Your task to perform on an android device: uninstall "Spotify: Music and Podcasts" Image 0: 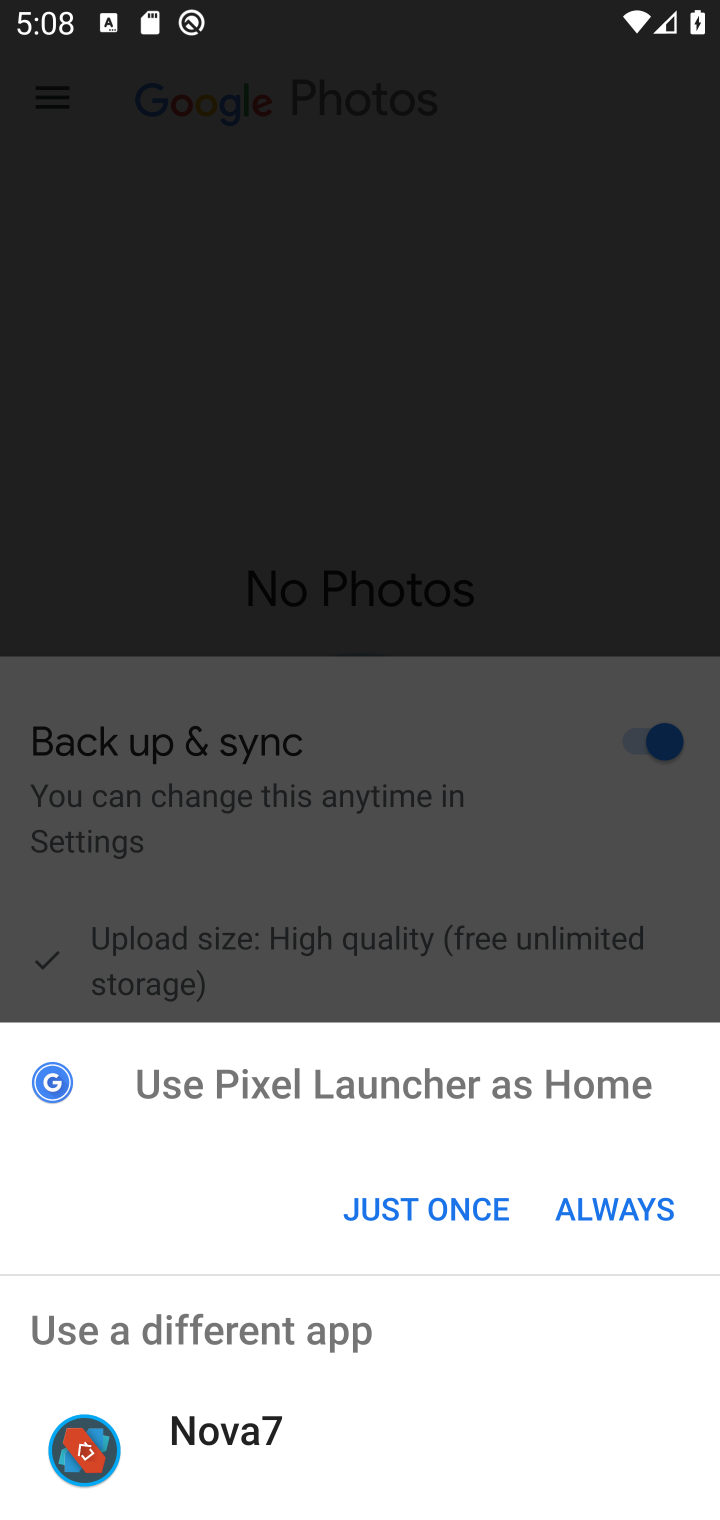
Step 0: press home button
Your task to perform on an android device: uninstall "Spotify: Music and Podcasts" Image 1: 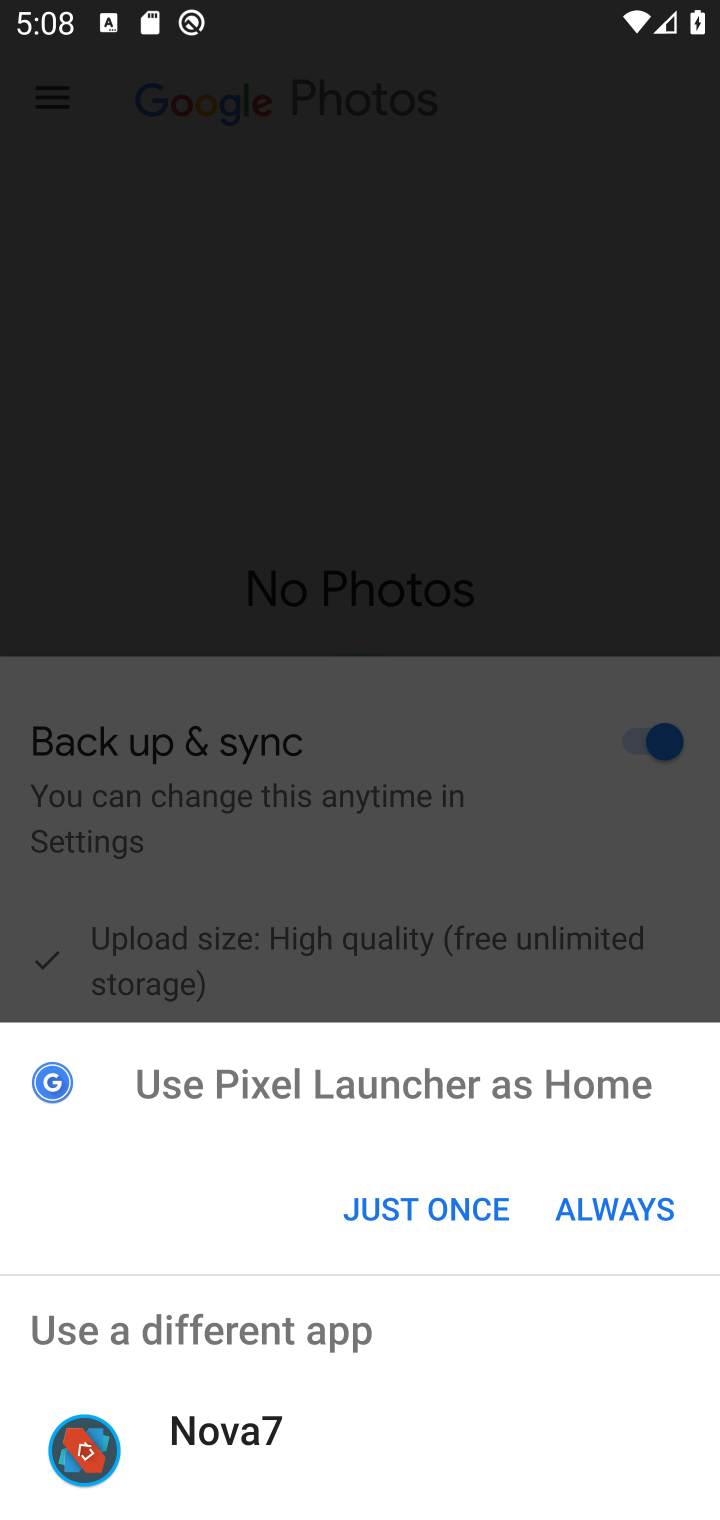
Step 1: click (481, 1201)
Your task to perform on an android device: uninstall "Spotify: Music and Podcasts" Image 2: 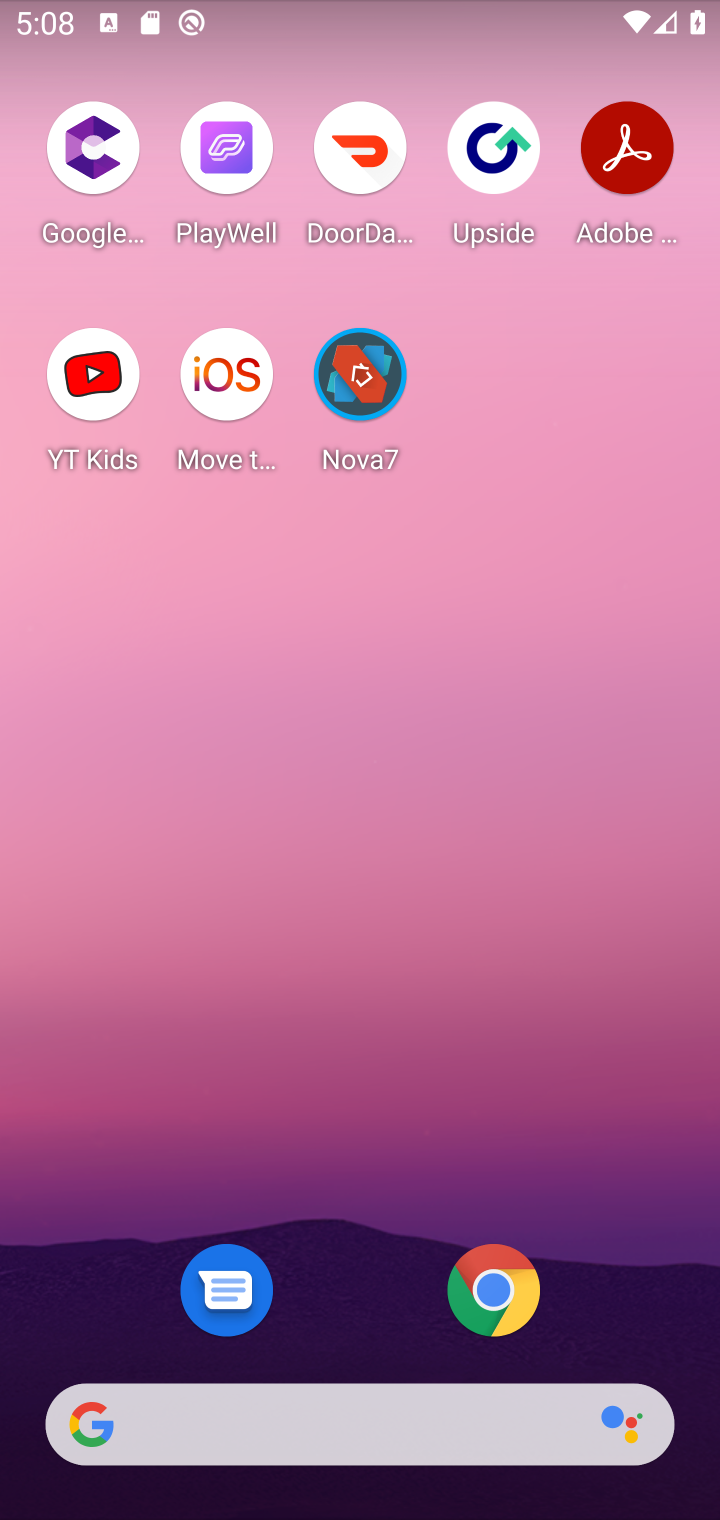
Step 2: drag from (409, 1408) to (512, 54)
Your task to perform on an android device: uninstall "Spotify: Music and Podcasts" Image 3: 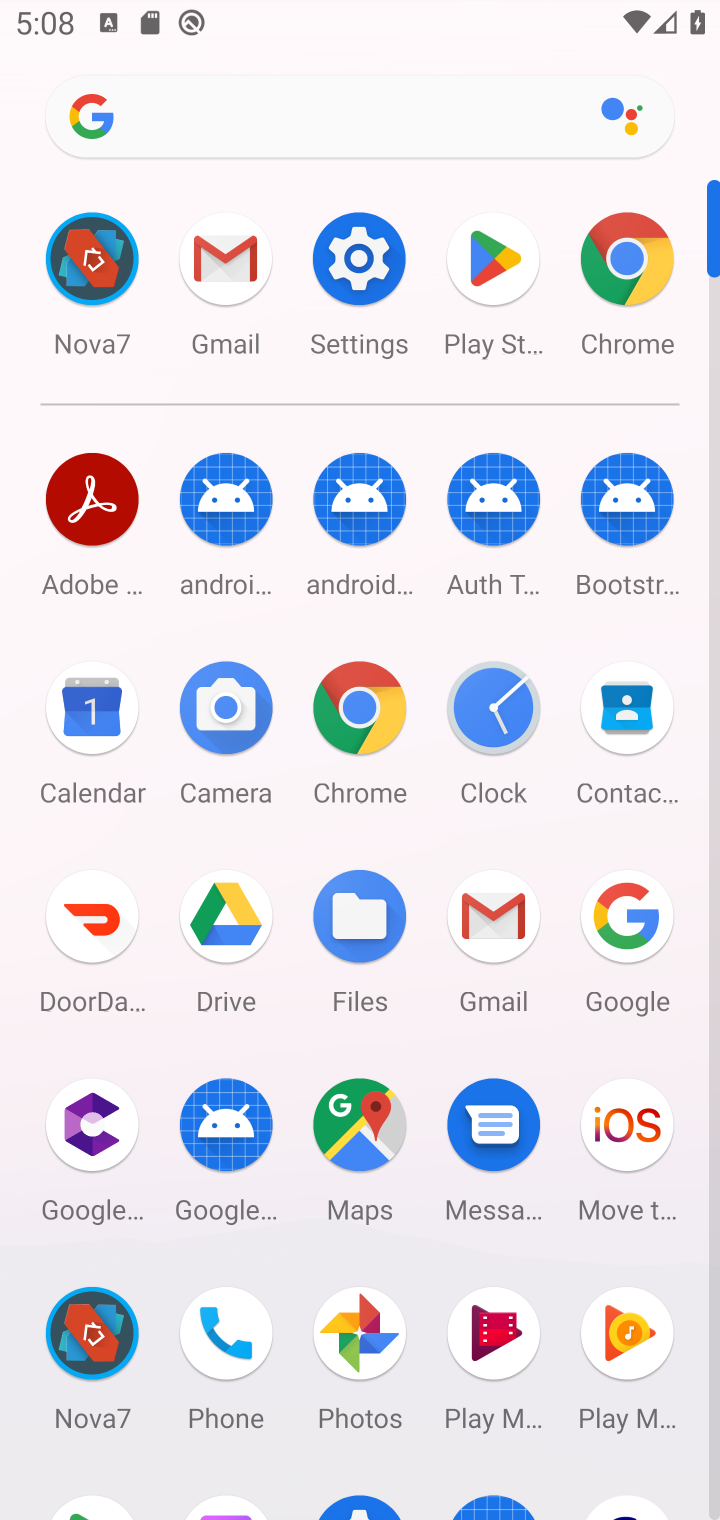
Step 3: click (502, 288)
Your task to perform on an android device: uninstall "Spotify: Music and Podcasts" Image 4: 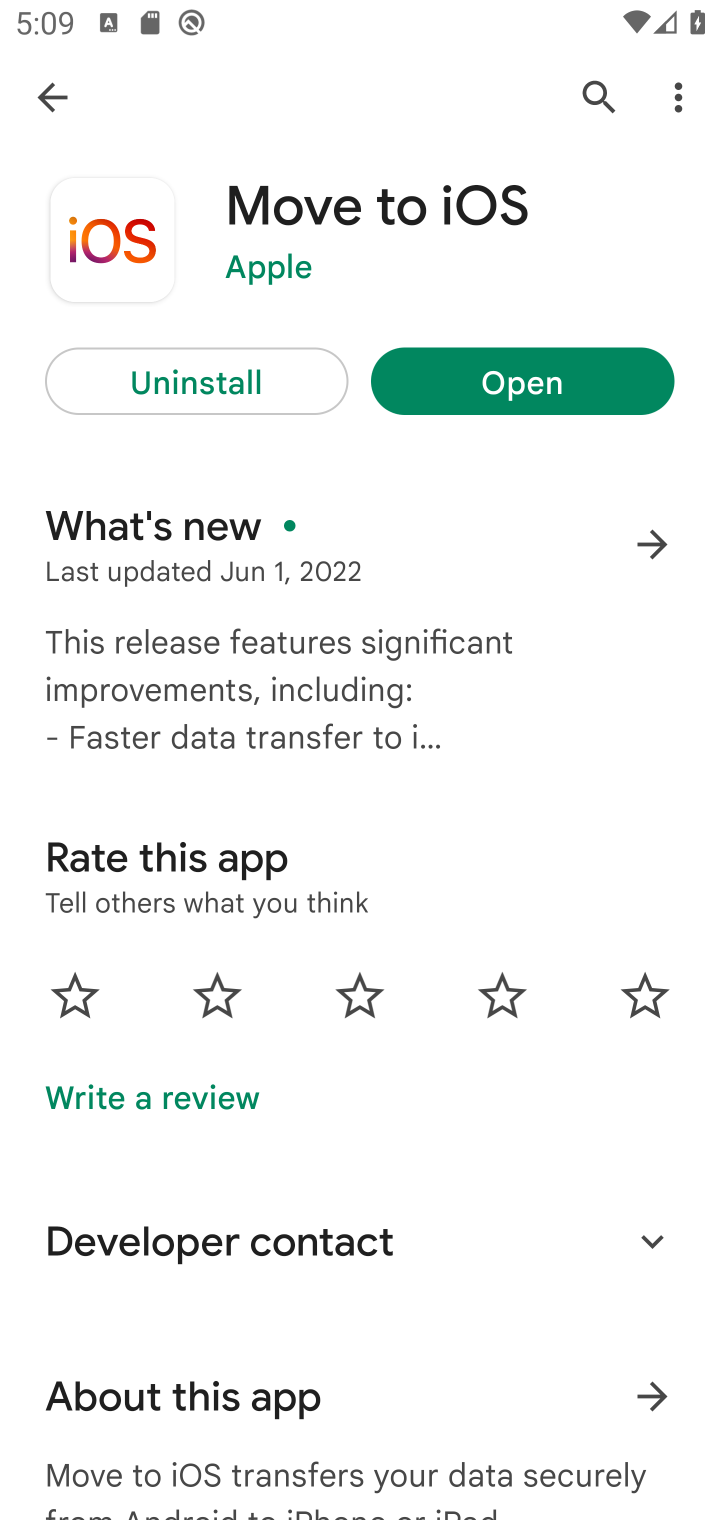
Step 4: click (581, 91)
Your task to perform on an android device: uninstall "Spotify: Music and Podcasts" Image 5: 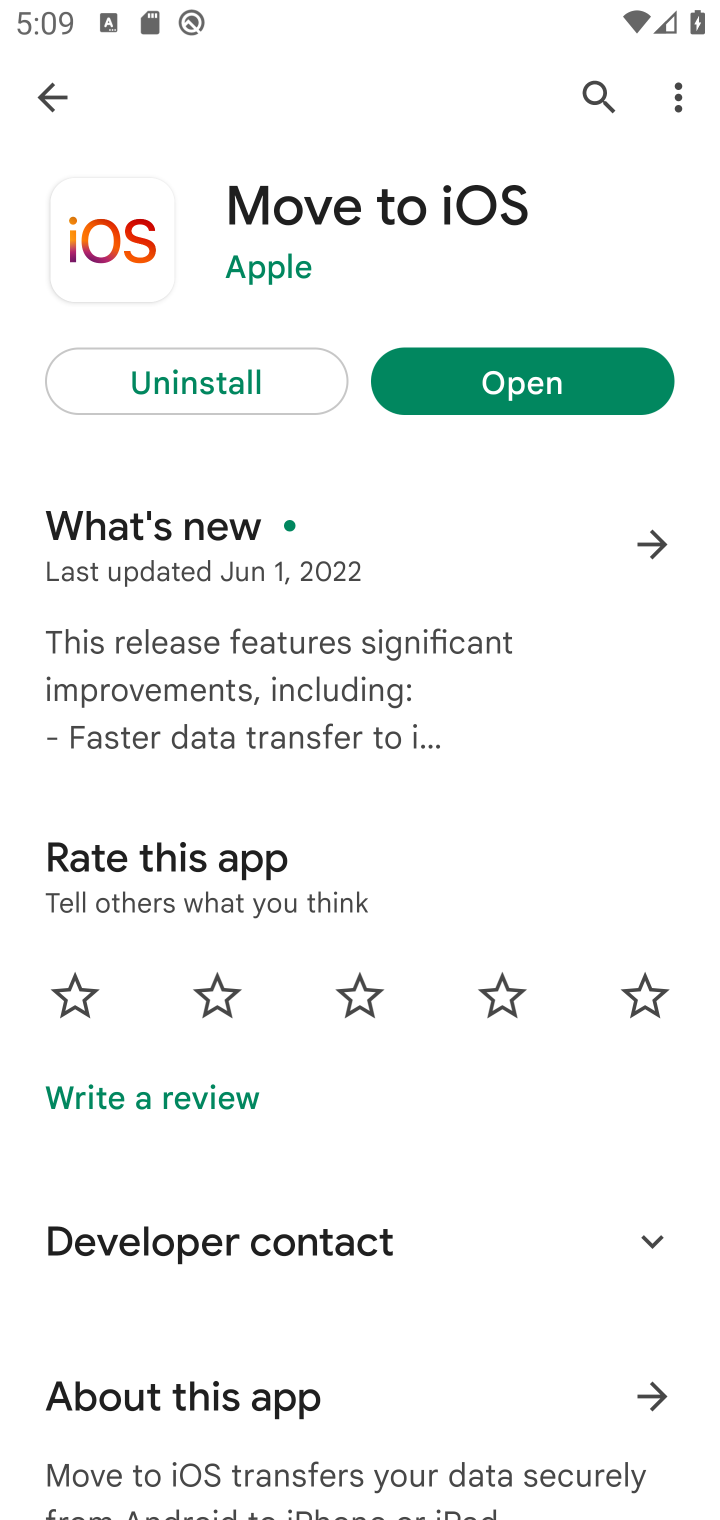
Step 5: click (616, 102)
Your task to perform on an android device: uninstall "Spotify: Music and Podcasts" Image 6: 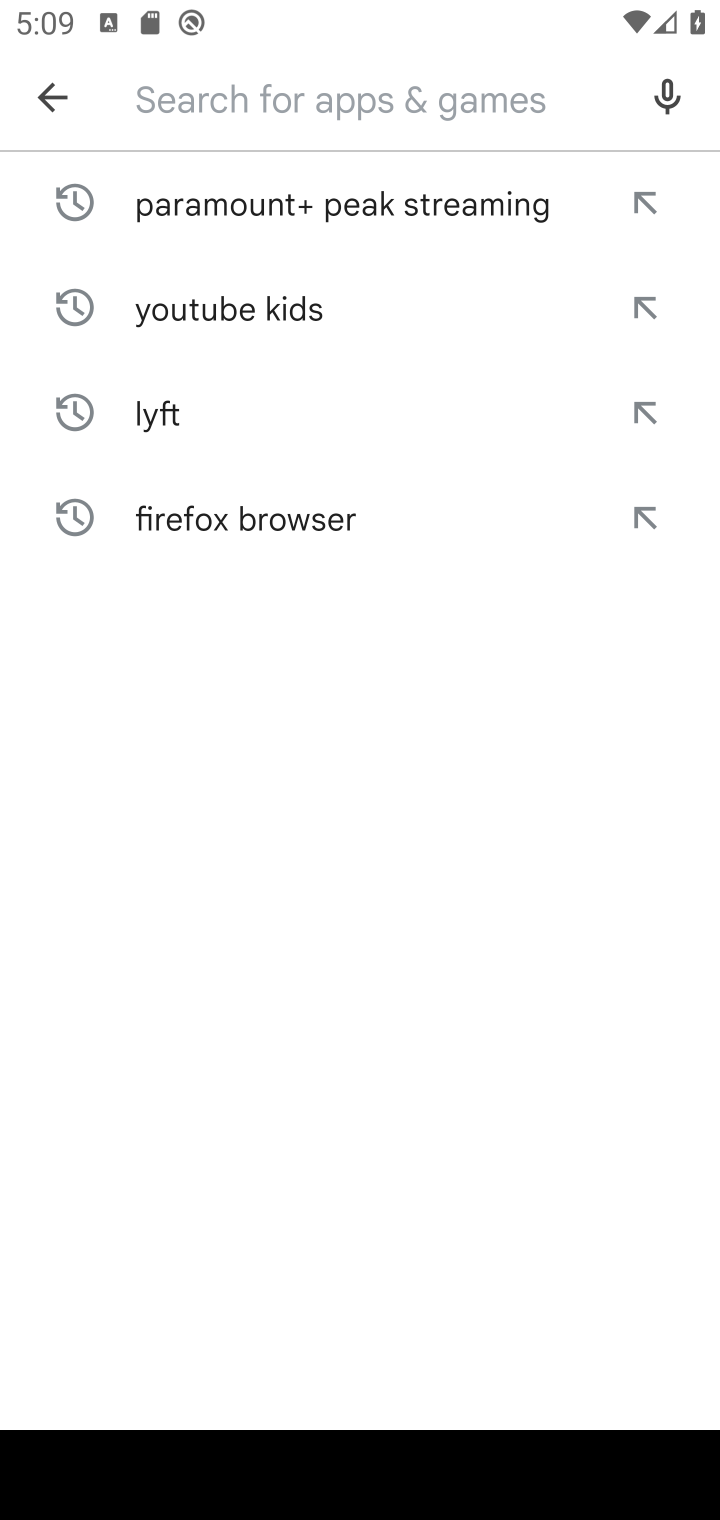
Step 6: type "spotify"
Your task to perform on an android device: uninstall "Spotify: Music and Podcasts" Image 7: 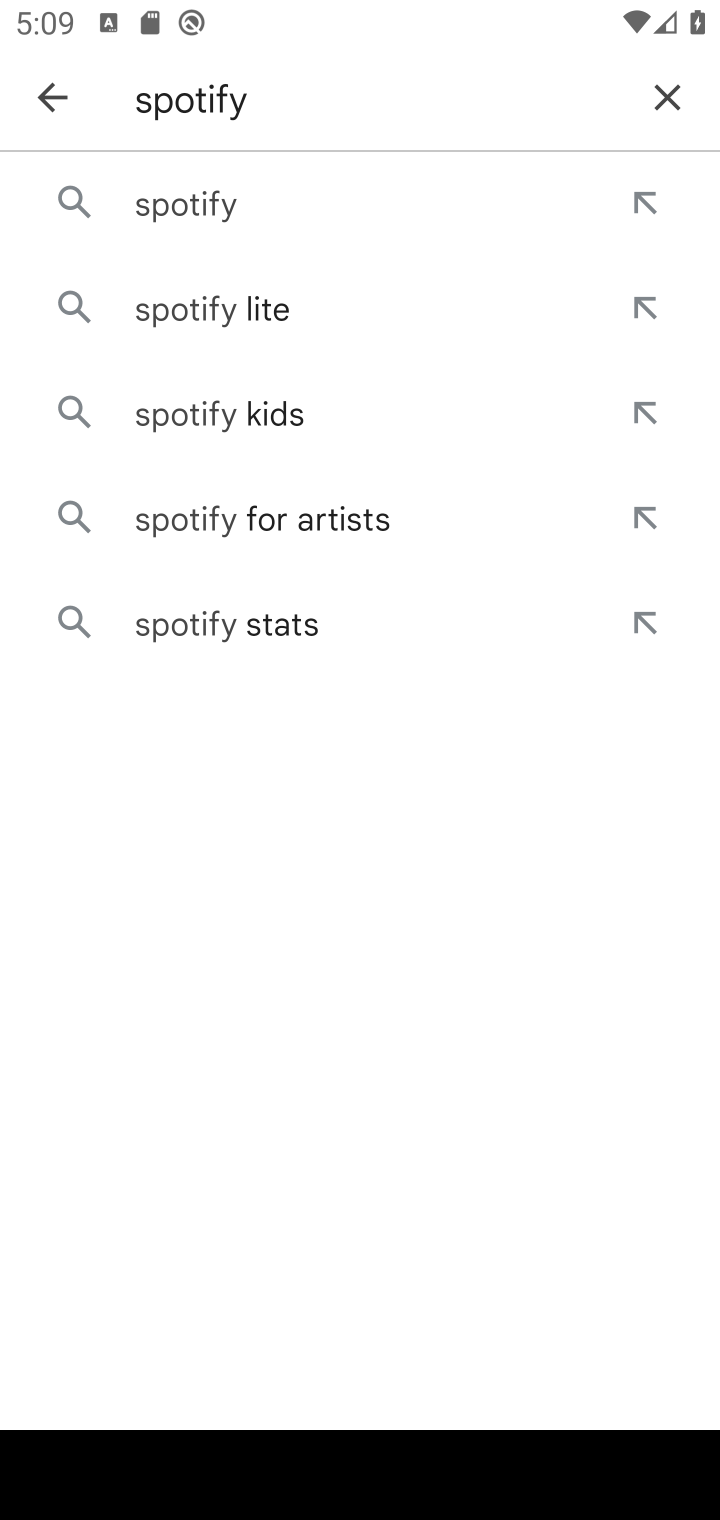
Step 7: click (253, 201)
Your task to perform on an android device: uninstall "Spotify: Music and Podcasts" Image 8: 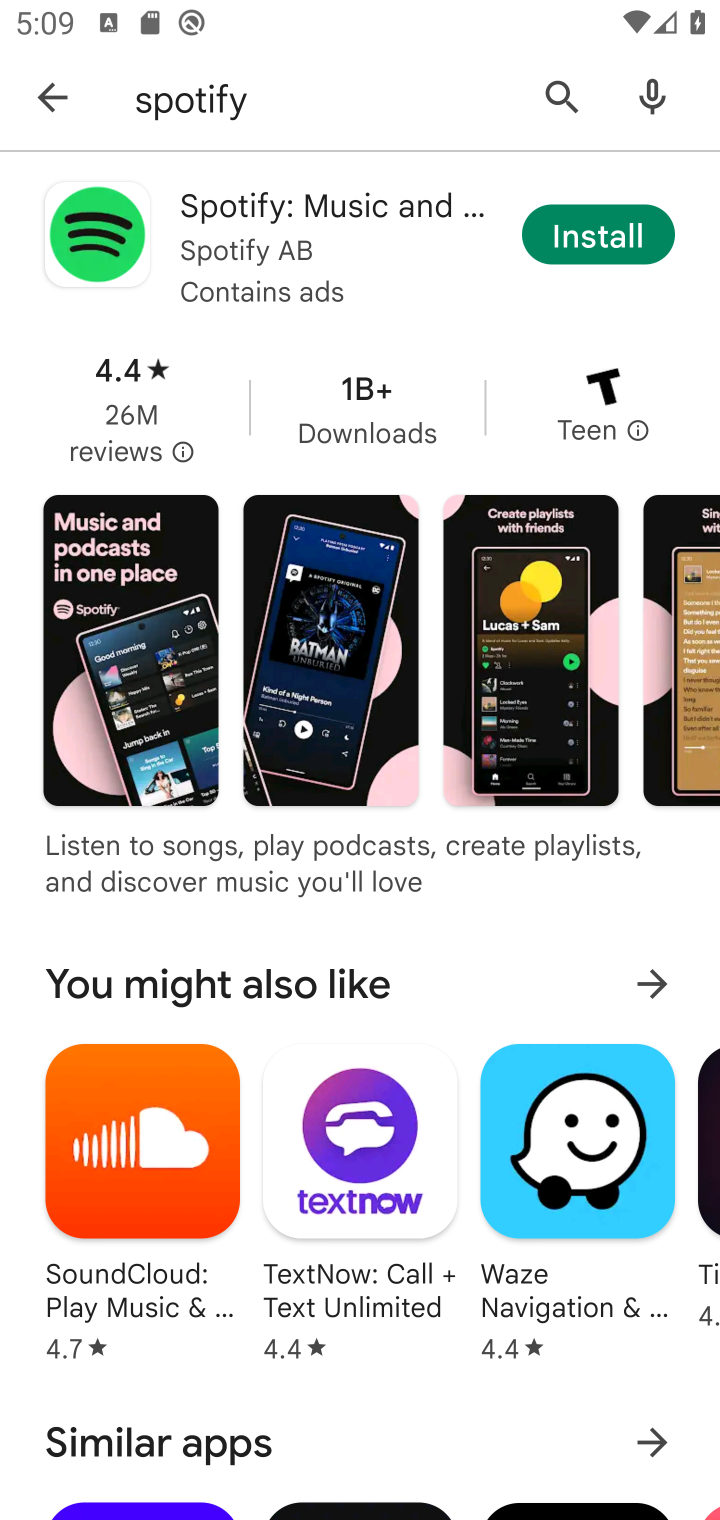
Step 8: task complete